Your task to perform on an android device: toggle pop-ups in chrome Image 0: 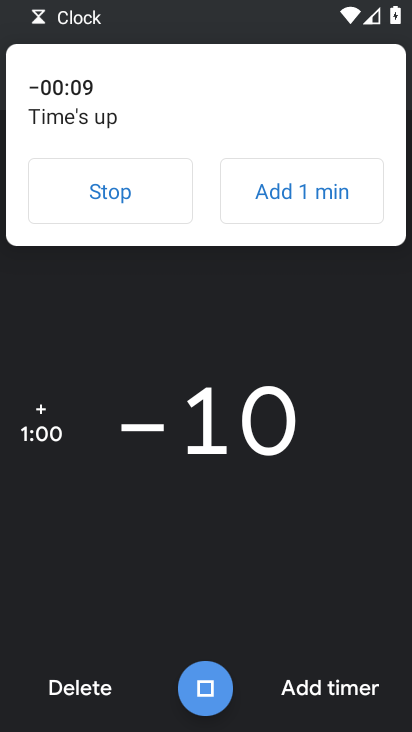
Step 0: press home button
Your task to perform on an android device: toggle pop-ups in chrome Image 1: 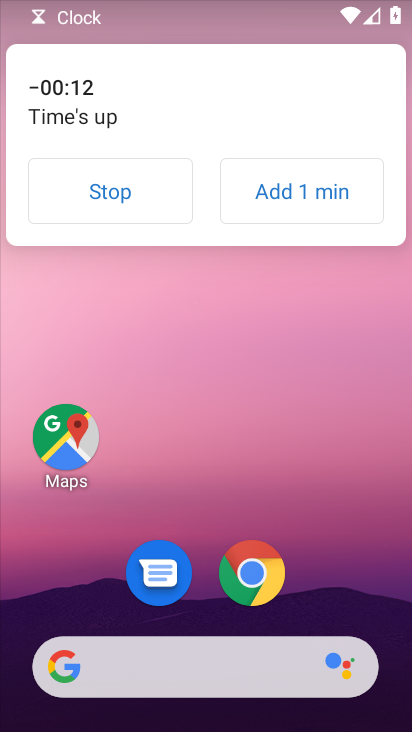
Step 1: click (87, 192)
Your task to perform on an android device: toggle pop-ups in chrome Image 2: 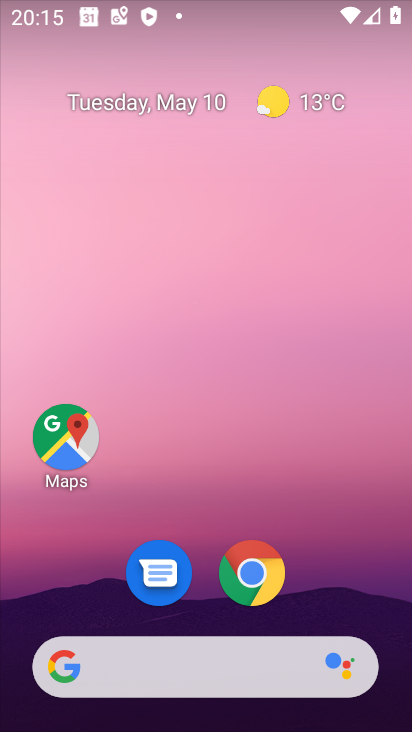
Step 2: click (256, 576)
Your task to perform on an android device: toggle pop-ups in chrome Image 3: 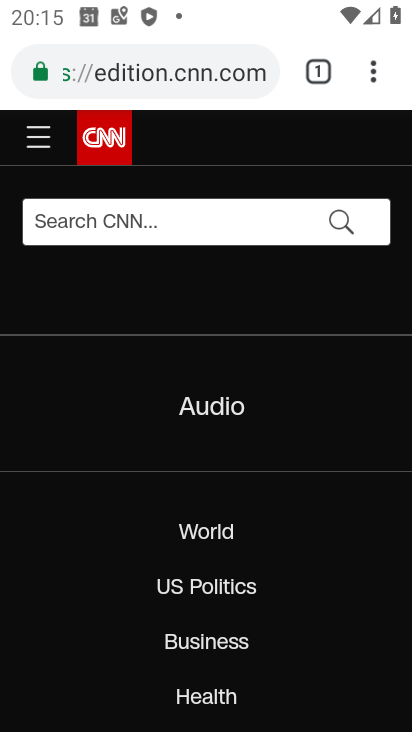
Step 3: click (378, 79)
Your task to perform on an android device: toggle pop-ups in chrome Image 4: 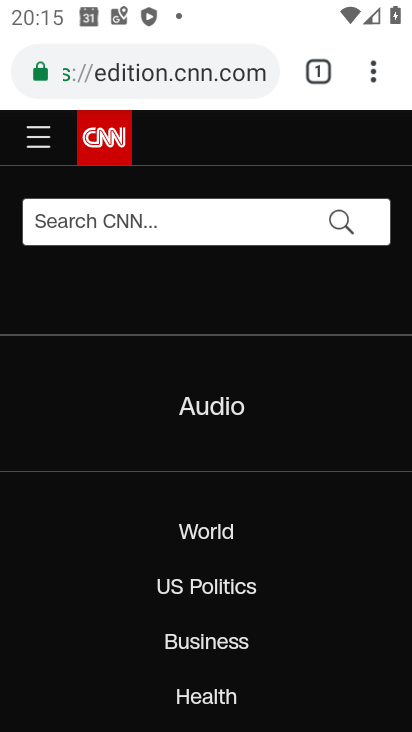
Step 4: drag from (374, 72) to (141, 579)
Your task to perform on an android device: toggle pop-ups in chrome Image 5: 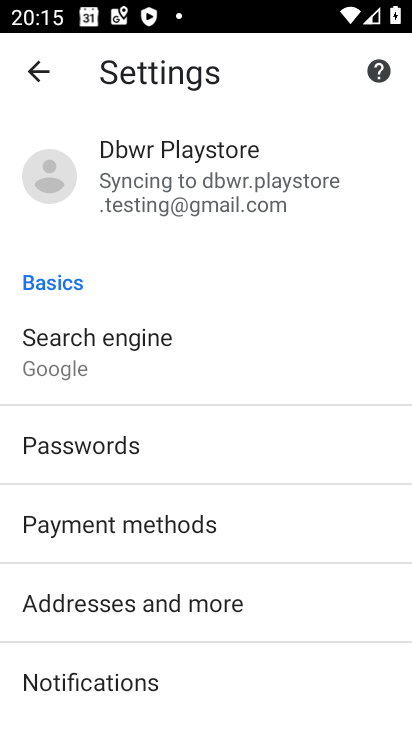
Step 5: drag from (137, 501) to (131, 617)
Your task to perform on an android device: toggle pop-ups in chrome Image 6: 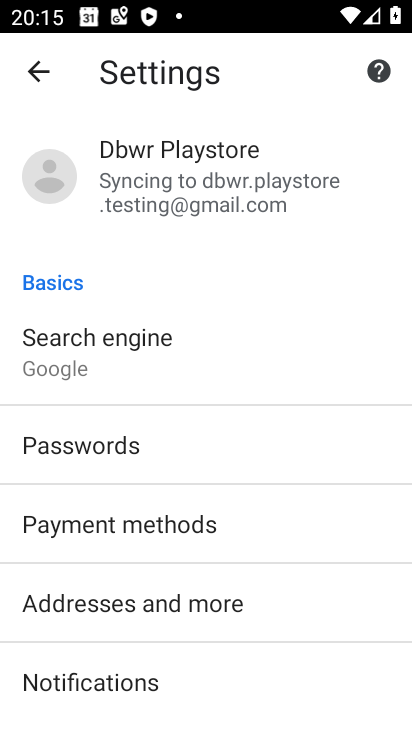
Step 6: drag from (263, 607) to (309, 306)
Your task to perform on an android device: toggle pop-ups in chrome Image 7: 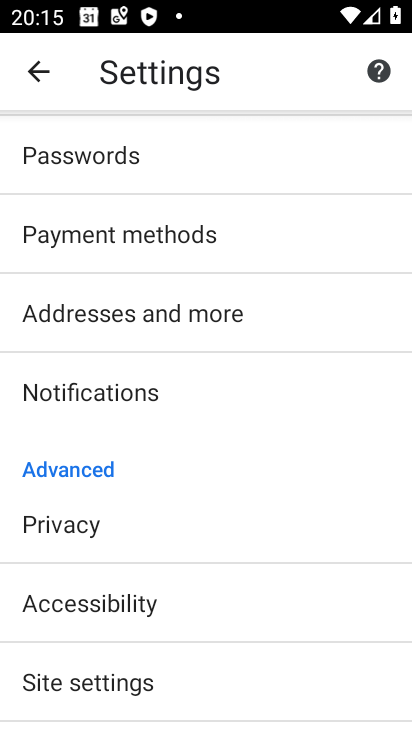
Step 7: drag from (226, 601) to (267, 393)
Your task to perform on an android device: toggle pop-ups in chrome Image 8: 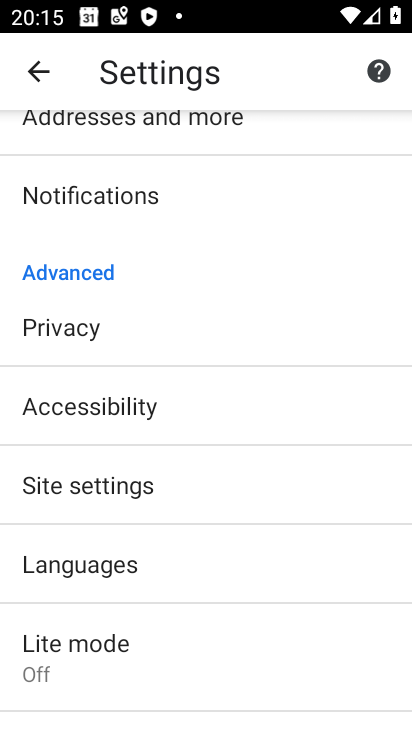
Step 8: click (125, 494)
Your task to perform on an android device: toggle pop-ups in chrome Image 9: 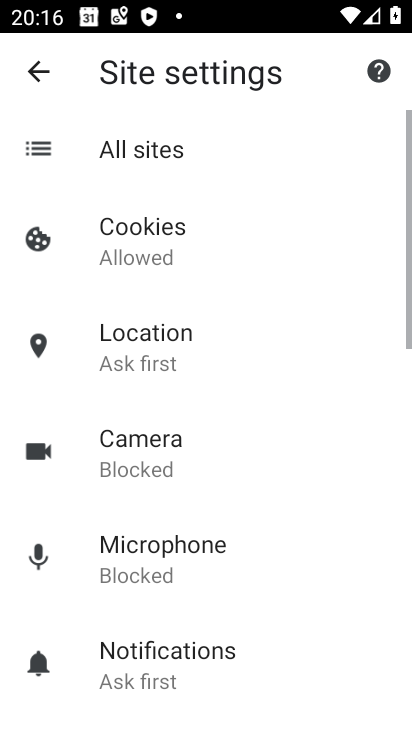
Step 9: drag from (280, 598) to (300, 222)
Your task to perform on an android device: toggle pop-ups in chrome Image 10: 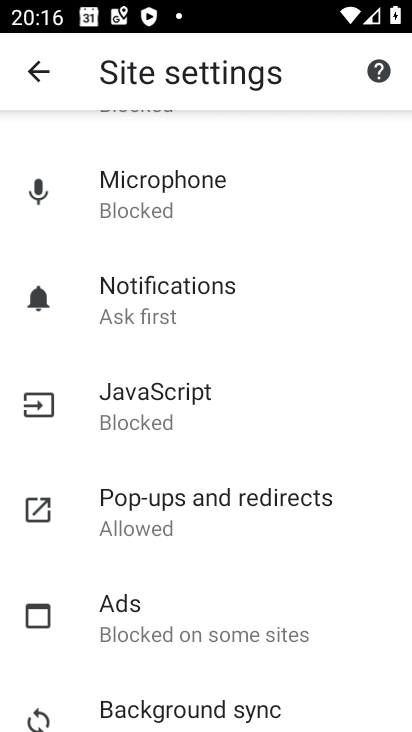
Step 10: click (144, 502)
Your task to perform on an android device: toggle pop-ups in chrome Image 11: 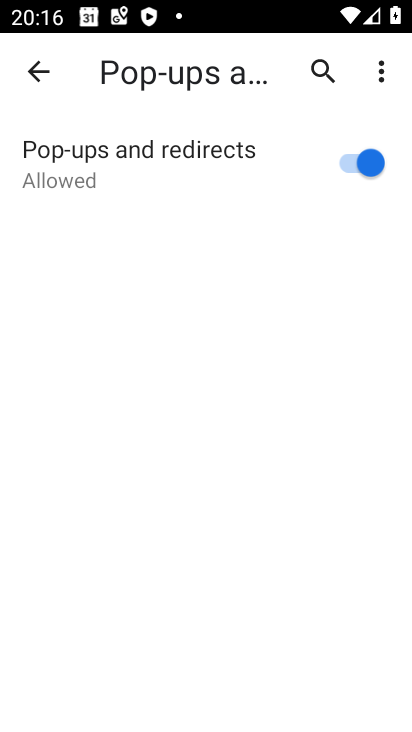
Step 11: click (367, 166)
Your task to perform on an android device: toggle pop-ups in chrome Image 12: 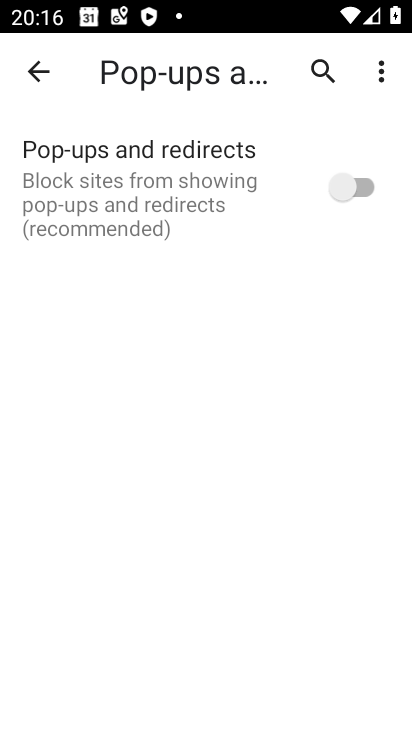
Step 12: task complete